Your task to perform on an android device: Clear the cart on target.com. Search for lg ultragear on target.com, select the first entry, add it to the cart, then select checkout. Image 0: 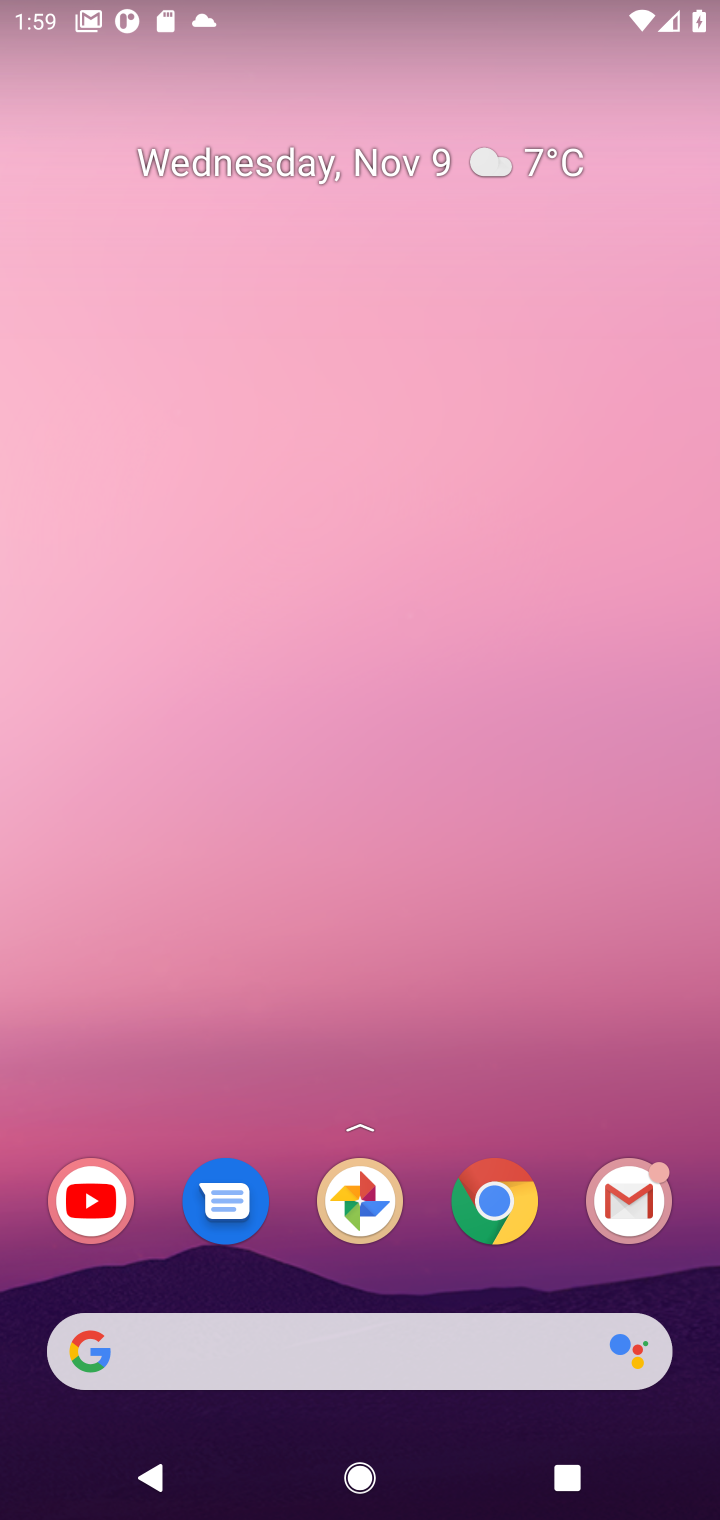
Step 0: click (326, 1356)
Your task to perform on an android device: Clear the cart on target.com. Search for lg ultragear on target.com, select the first entry, add it to the cart, then select checkout. Image 1: 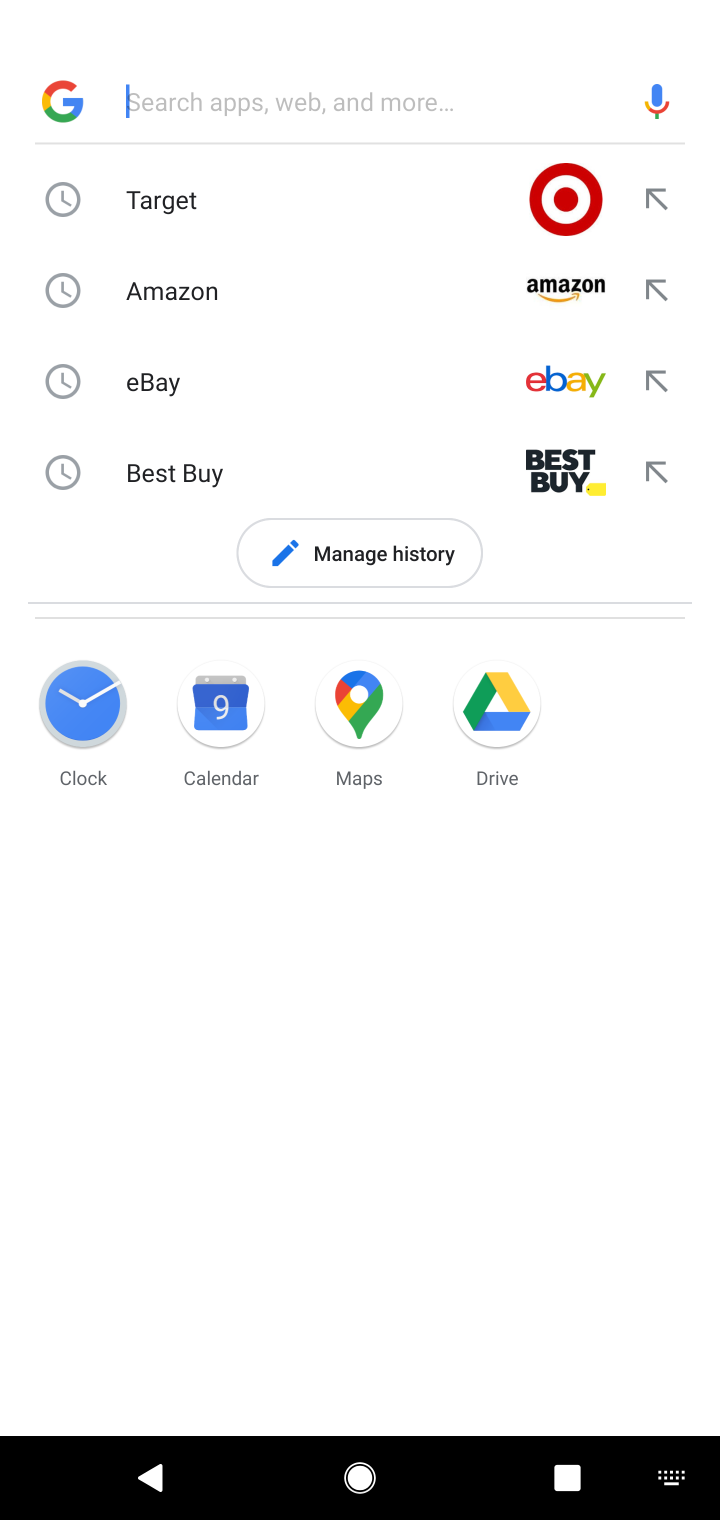
Step 1: click (204, 194)
Your task to perform on an android device: Clear the cart on target.com. Search for lg ultragear on target.com, select the first entry, add it to the cart, then select checkout. Image 2: 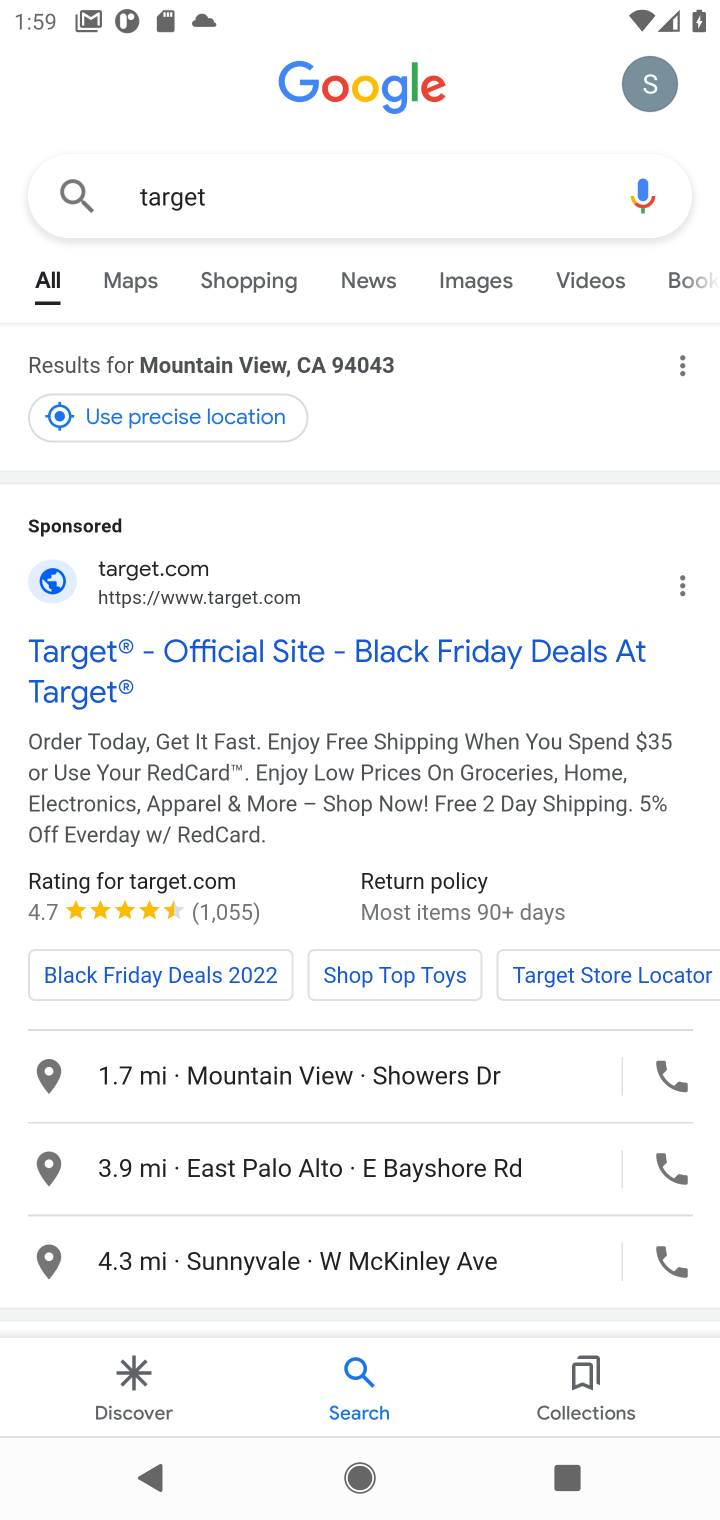
Step 2: click (148, 564)
Your task to perform on an android device: Clear the cart on target.com. Search for lg ultragear on target.com, select the first entry, add it to the cart, then select checkout. Image 3: 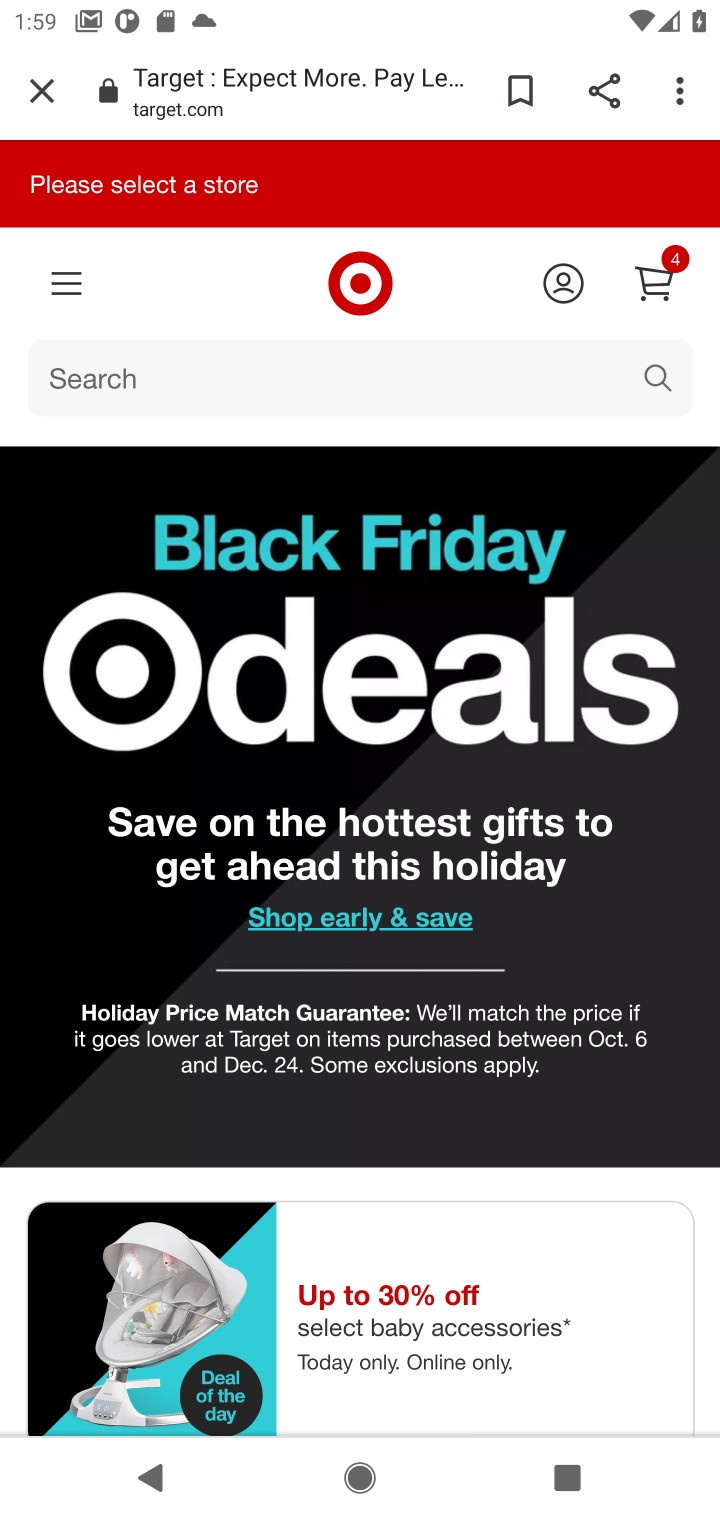
Step 3: click (282, 373)
Your task to perform on an android device: Clear the cart on target.com. Search for lg ultragear on target.com, select the first entry, add it to the cart, then select checkout. Image 4: 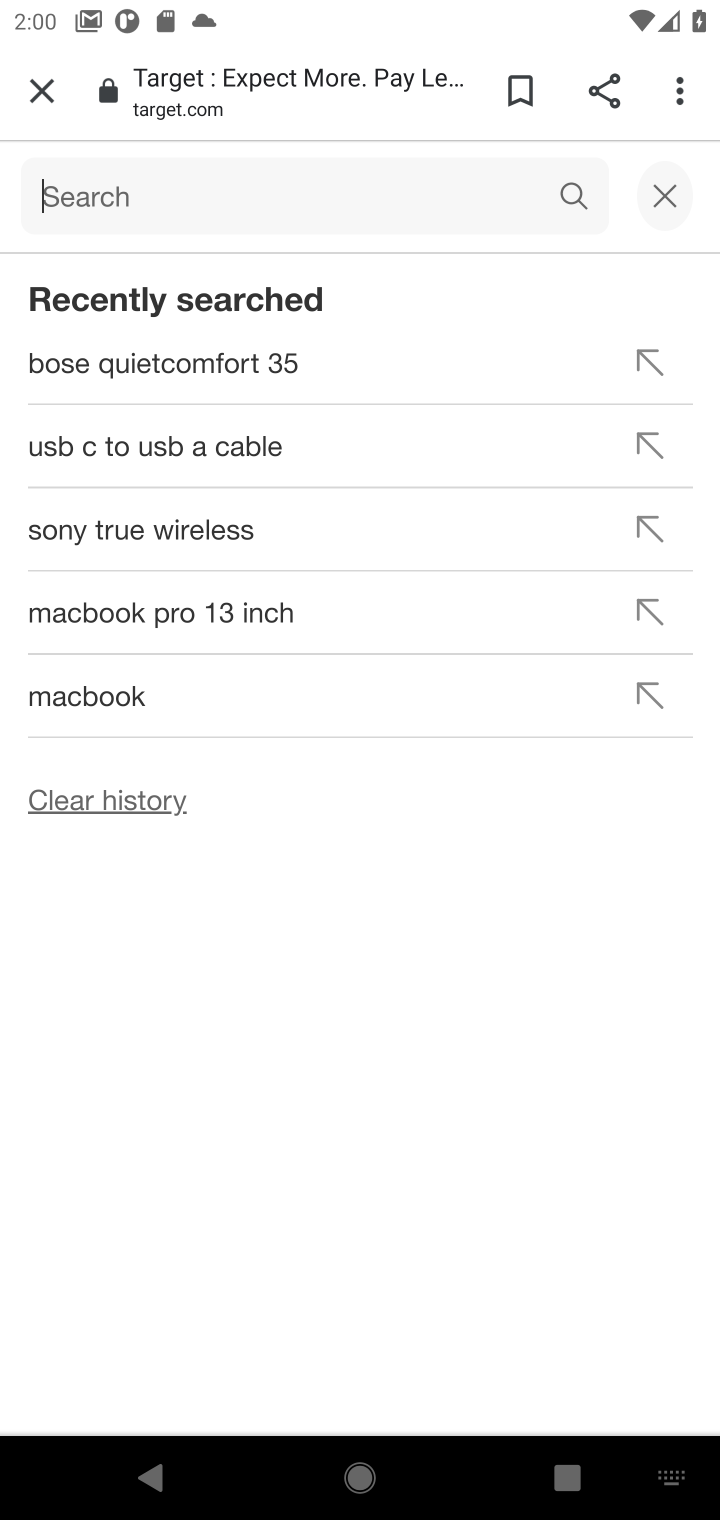
Step 4: type " lg ultragear"
Your task to perform on an android device: Clear the cart on target.com. Search for lg ultragear on target.com, select the first entry, add it to the cart, then select checkout. Image 5: 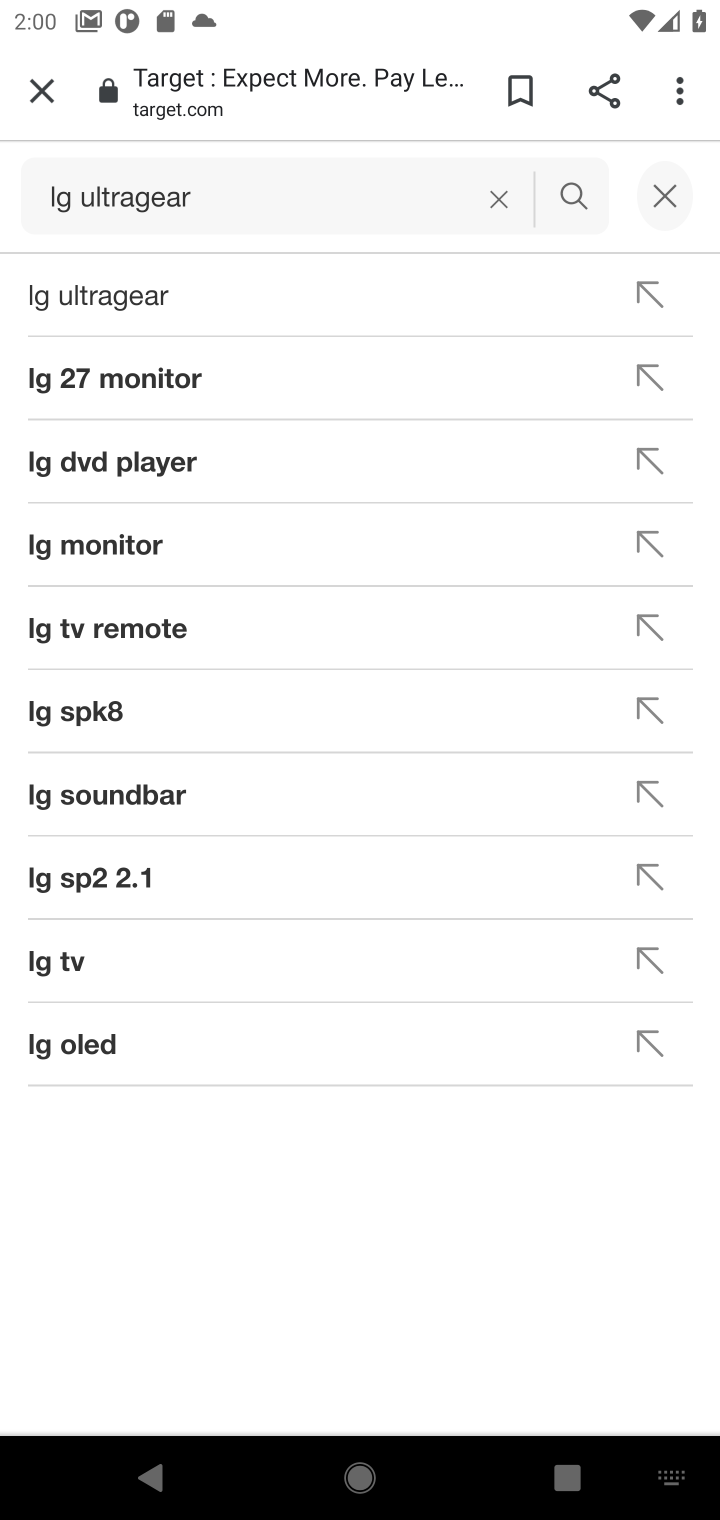
Step 5: click (104, 201)
Your task to perform on an android device: Clear the cart on target.com. Search for lg ultragear on target.com, select the first entry, add it to the cart, then select checkout. Image 6: 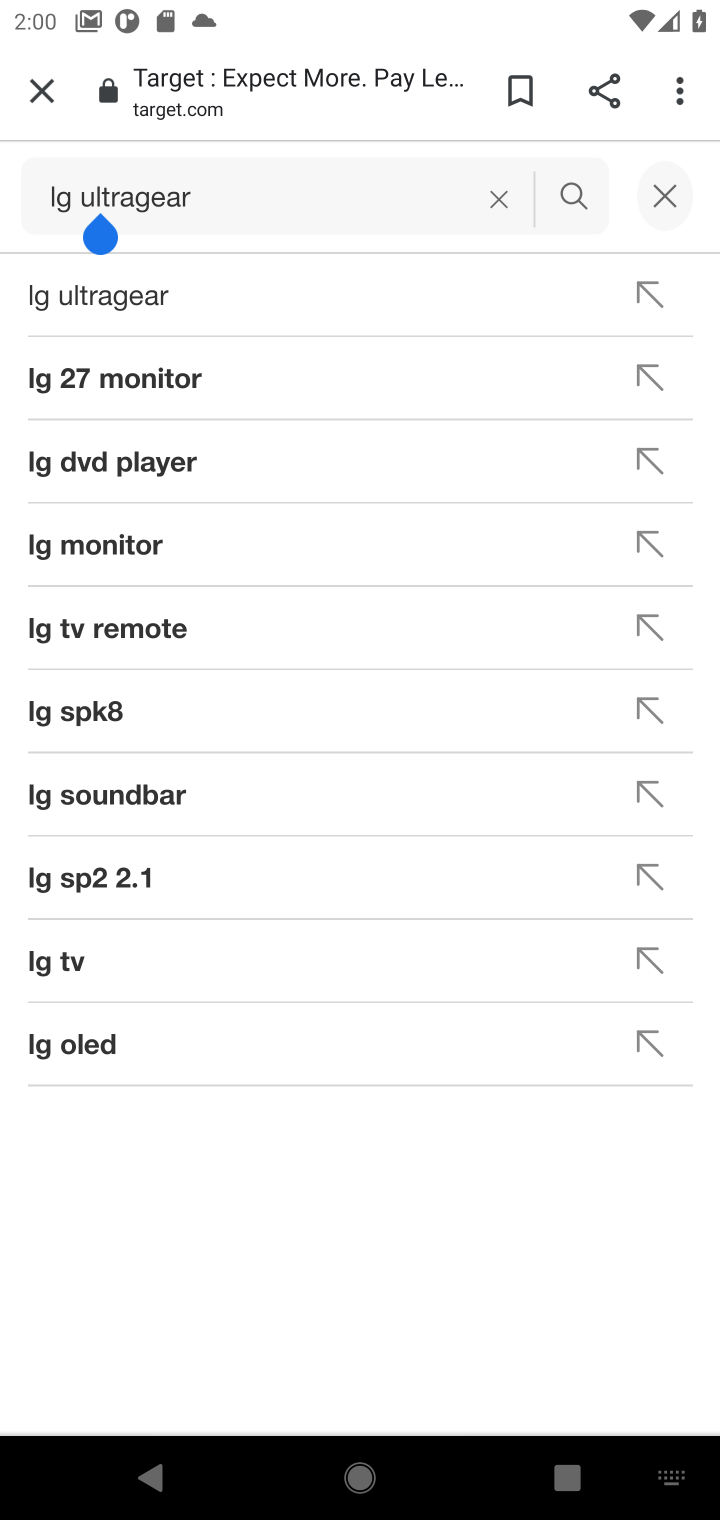
Step 6: click (102, 295)
Your task to perform on an android device: Clear the cart on target.com. Search for lg ultragear on target.com, select the first entry, add it to the cart, then select checkout. Image 7: 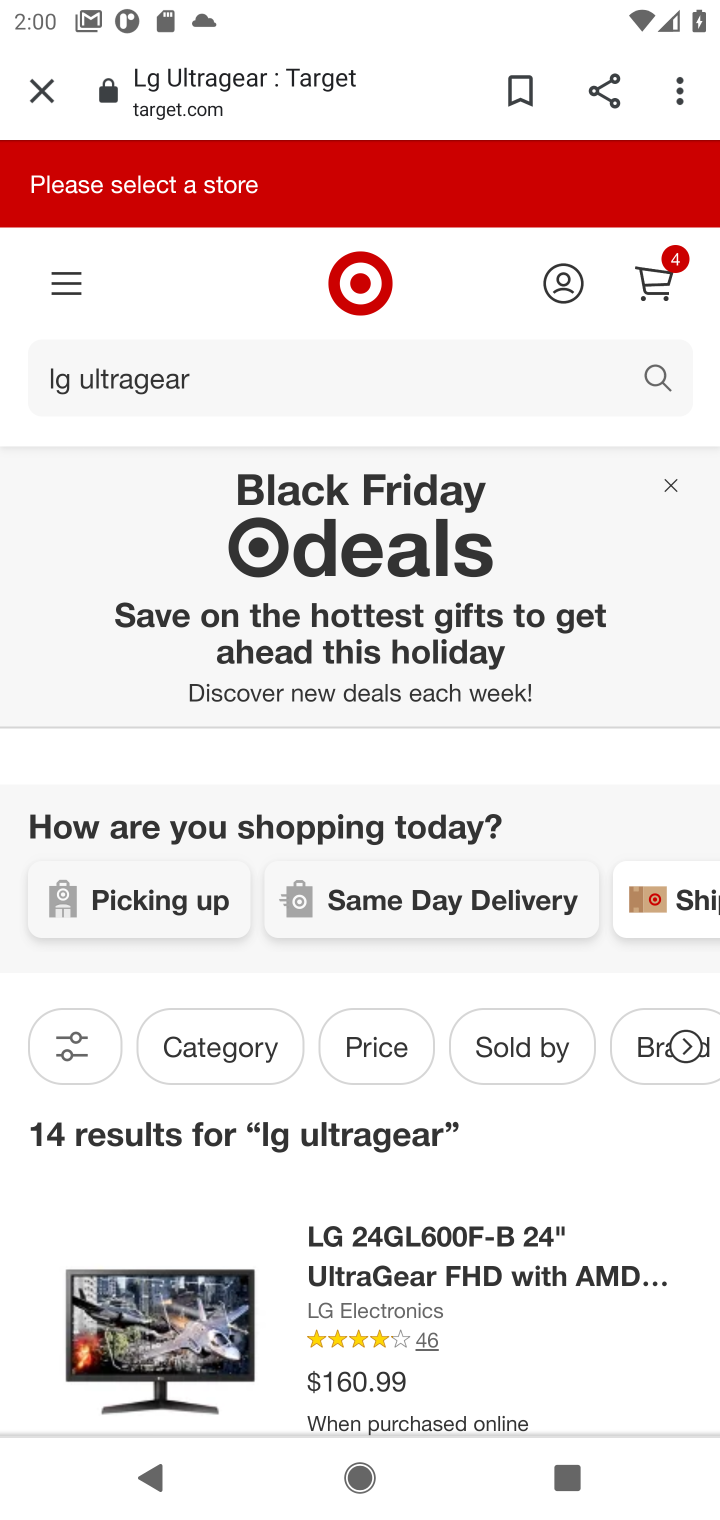
Step 7: drag from (219, 1103) to (302, 777)
Your task to perform on an android device: Clear the cart on target.com. Search for lg ultragear on target.com, select the first entry, add it to the cart, then select checkout. Image 8: 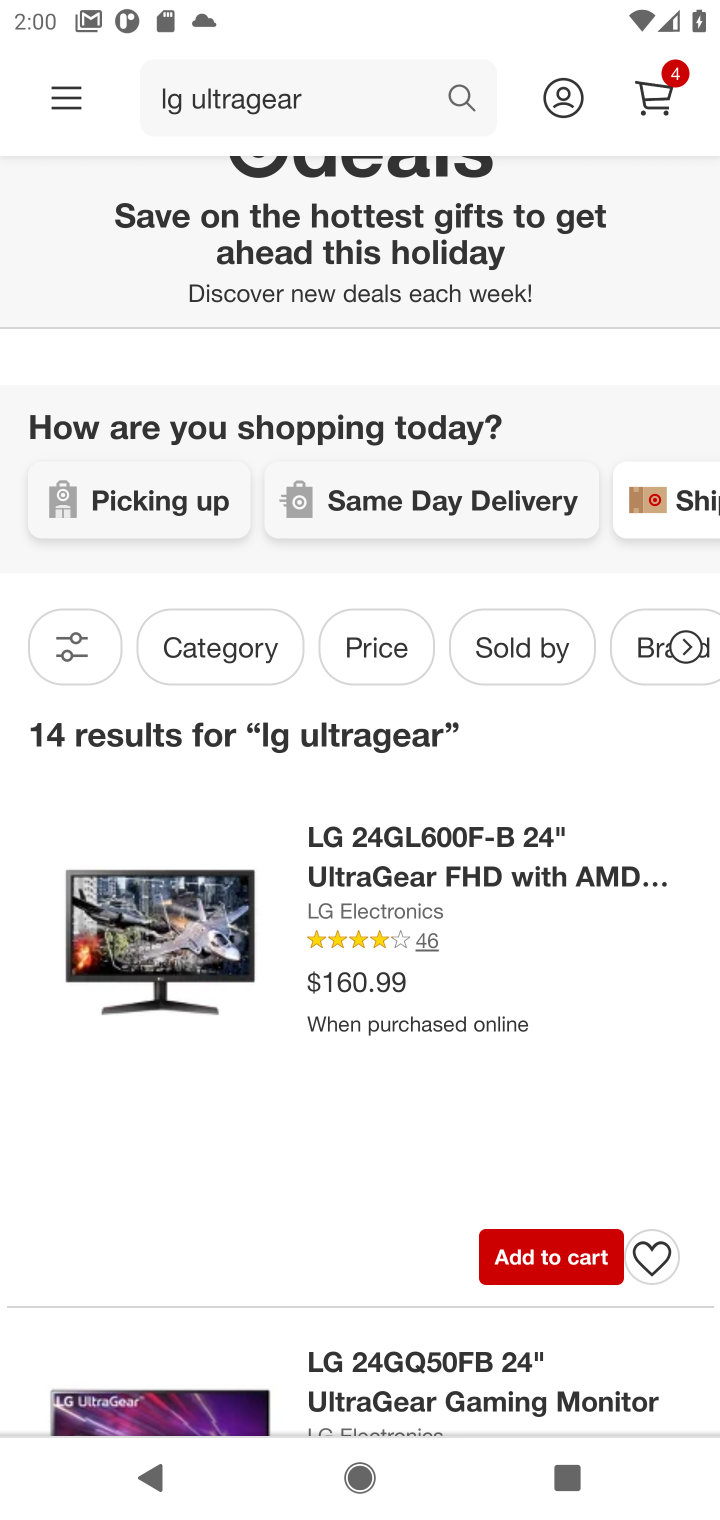
Step 8: click (564, 1251)
Your task to perform on an android device: Clear the cart on target.com. Search for lg ultragear on target.com, select the first entry, add it to the cart, then select checkout. Image 9: 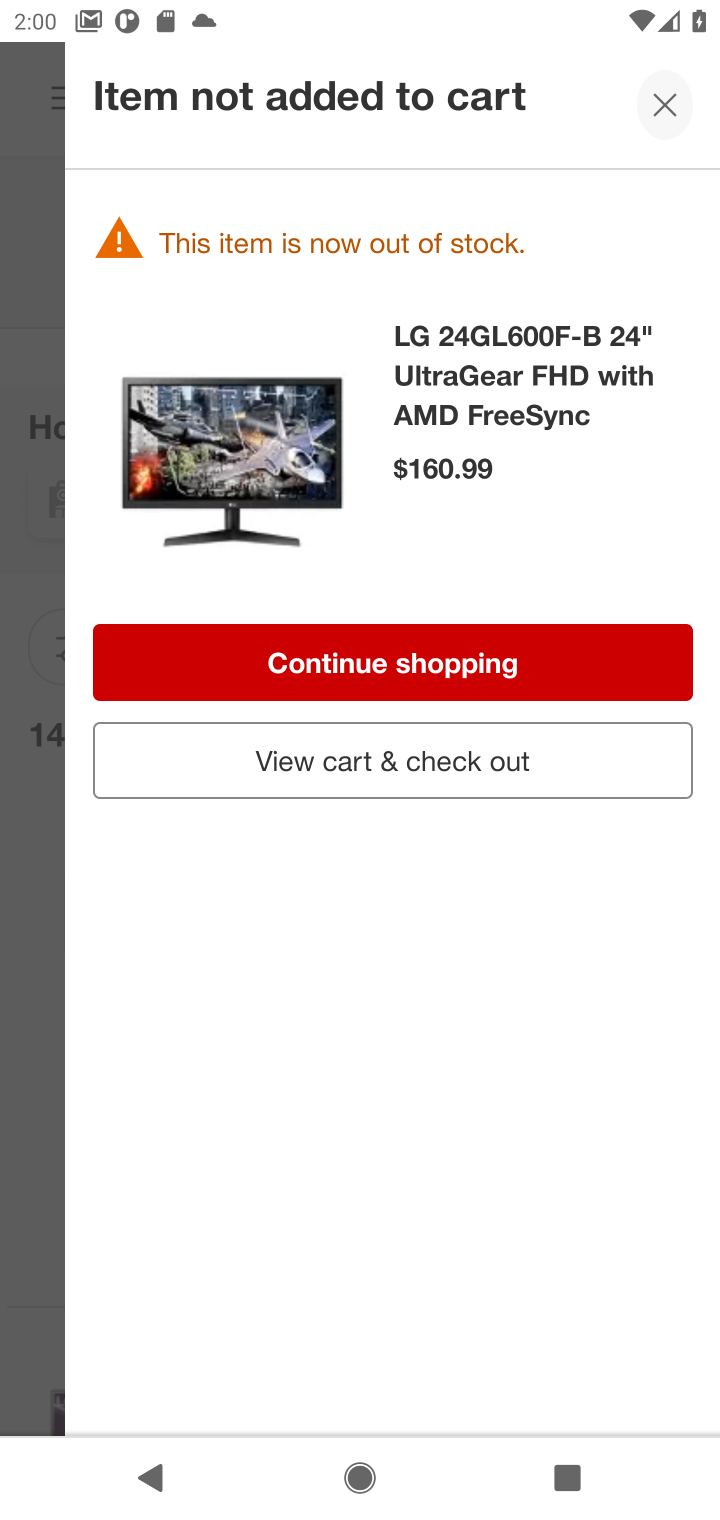
Step 9: click (339, 755)
Your task to perform on an android device: Clear the cart on target.com. Search for lg ultragear on target.com, select the first entry, add it to the cart, then select checkout. Image 10: 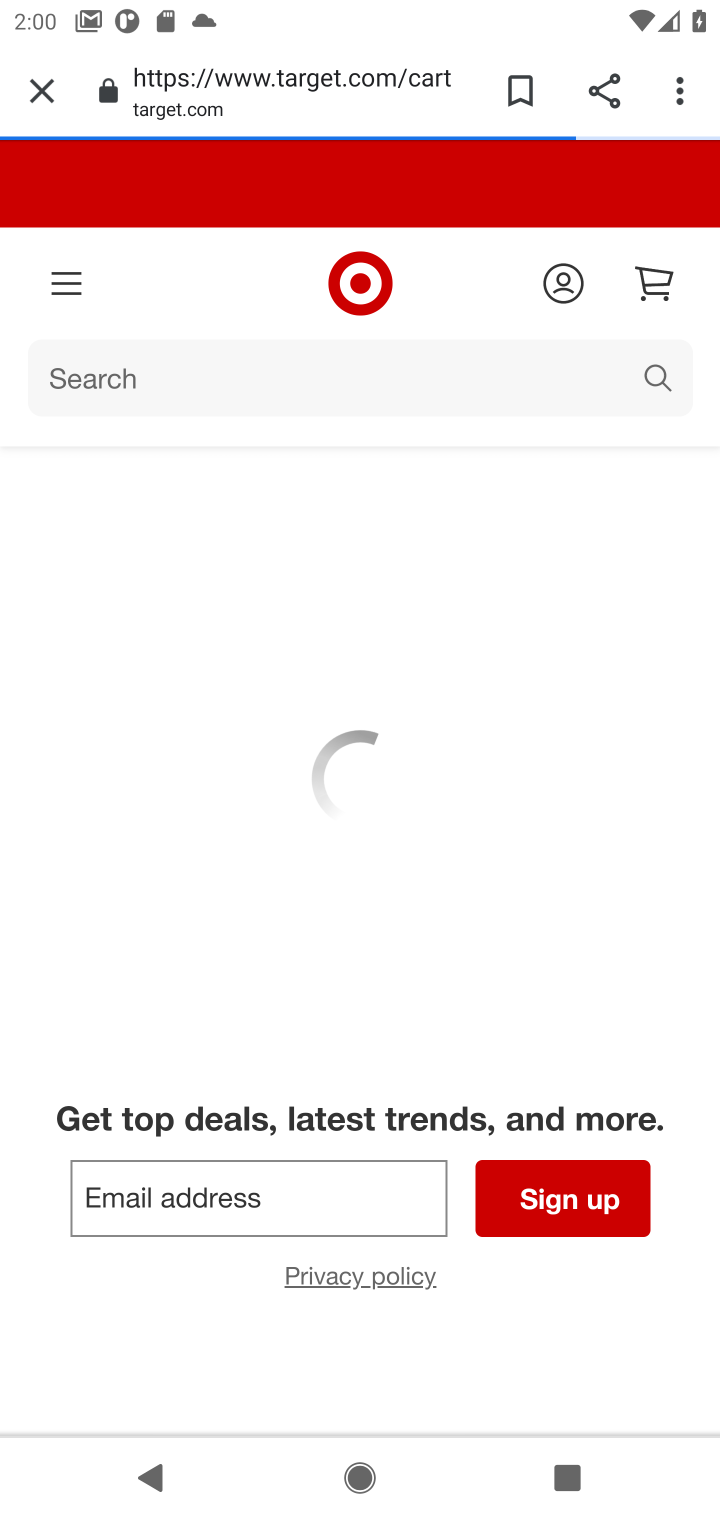
Step 10: task complete